Your task to perform on an android device: Go to location settings Image 0: 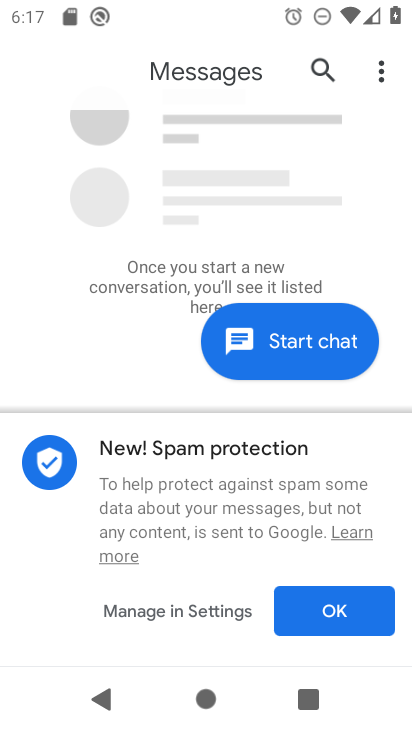
Step 0: press home button
Your task to perform on an android device: Go to location settings Image 1: 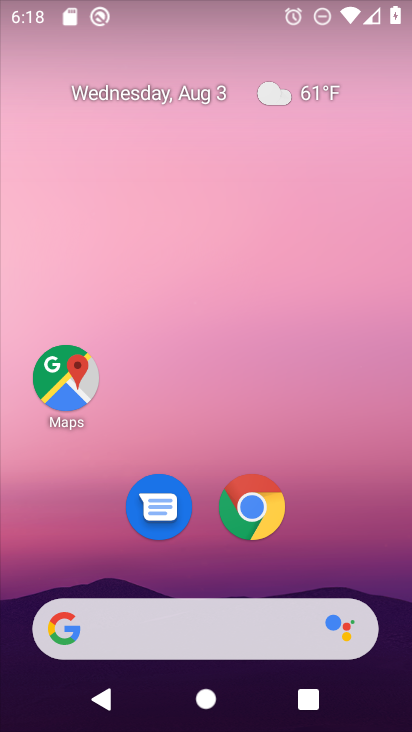
Step 1: drag from (299, 543) to (261, 6)
Your task to perform on an android device: Go to location settings Image 2: 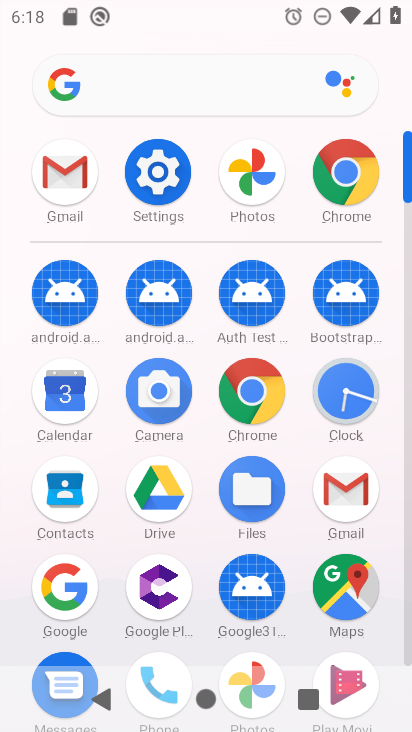
Step 2: click (171, 163)
Your task to perform on an android device: Go to location settings Image 3: 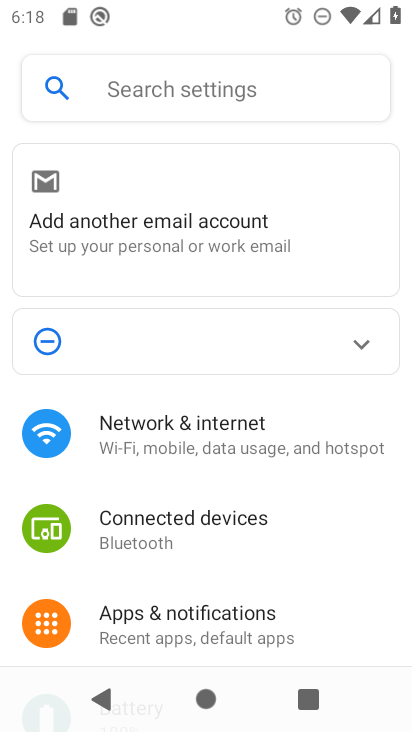
Step 3: drag from (211, 551) to (325, 76)
Your task to perform on an android device: Go to location settings Image 4: 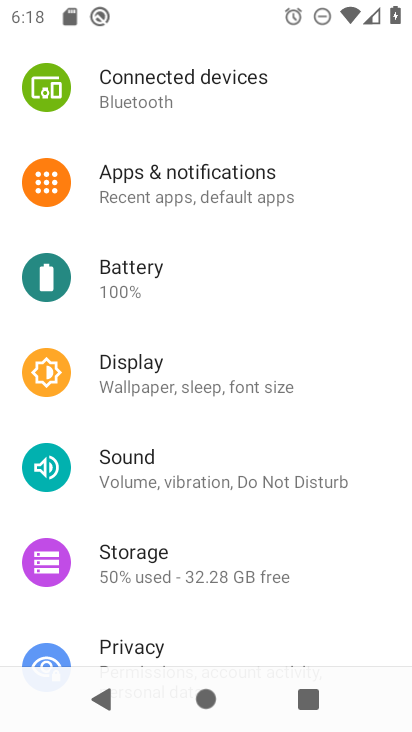
Step 4: drag from (231, 536) to (302, 89)
Your task to perform on an android device: Go to location settings Image 5: 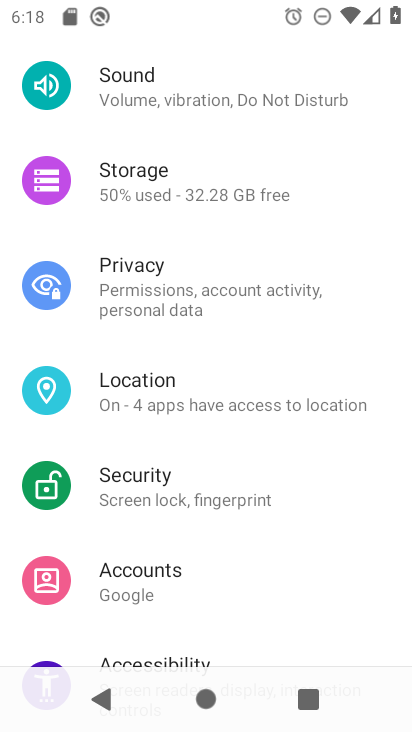
Step 5: click (163, 388)
Your task to perform on an android device: Go to location settings Image 6: 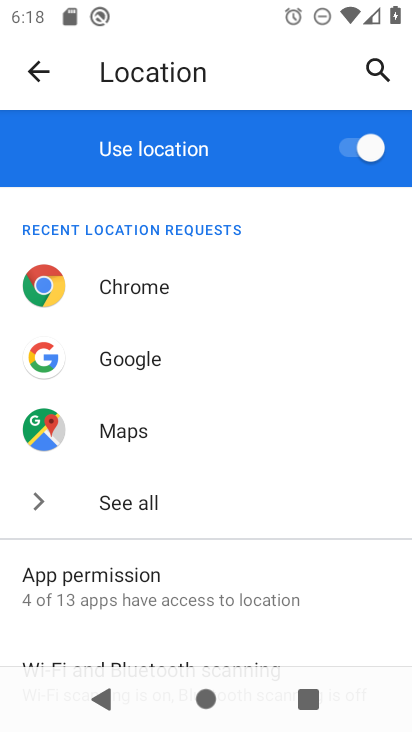
Step 6: task complete